Your task to perform on an android device: turn on bluetooth scan Image 0: 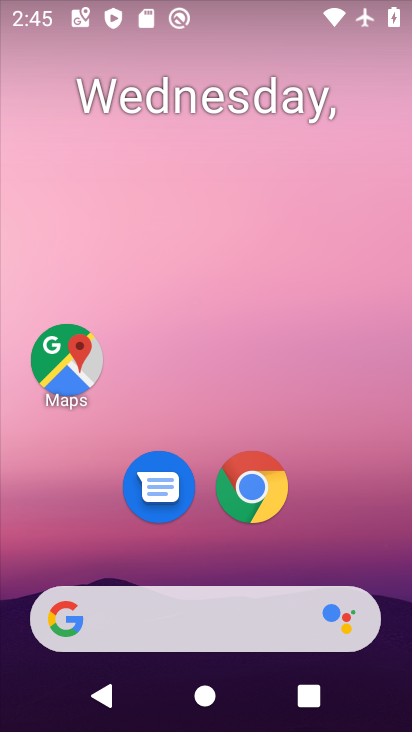
Step 0: drag from (355, 526) to (390, 59)
Your task to perform on an android device: turn on bluetooth scan Image 1: 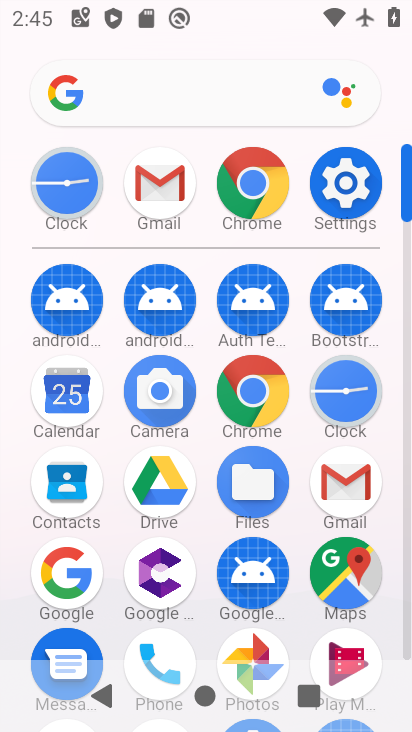
Step 1: click (356, 195)
Your task to perform on an android device: turn on bluetooth scan Image 2: 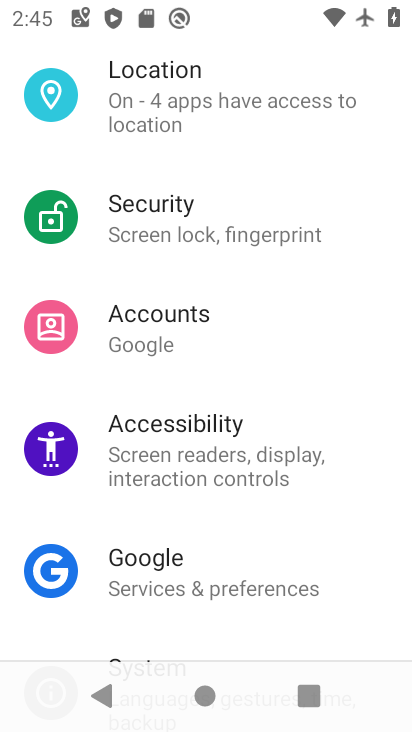
Step 2: drag from (248, 550) to (320, 174)
Your task to perform on an android device: turn on bluetooth scan Image 3: 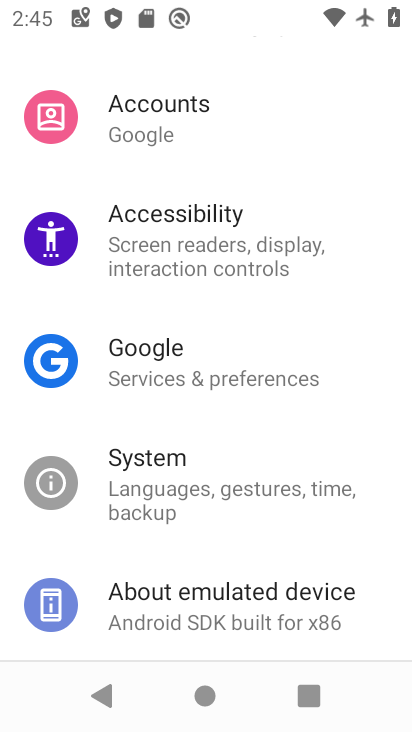
Step 3: drag from (320, 174) to (296, 514)
Your task to perform on an android device: turn on bluetooth scan Image 4: 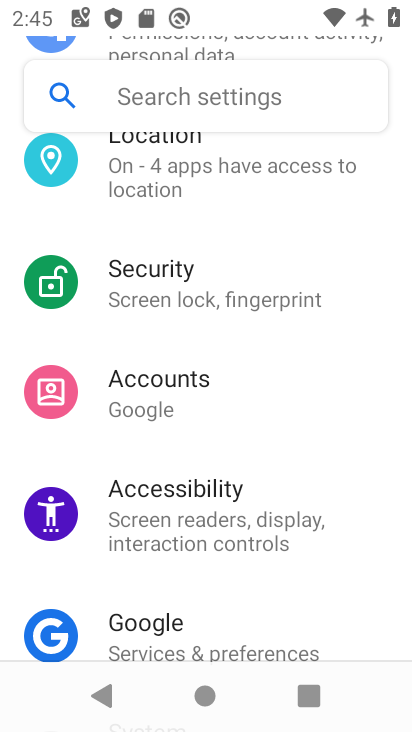
Step 4: click (219, 175)
Your task to perform on an android device: turn on bluetooth scan Image 5: 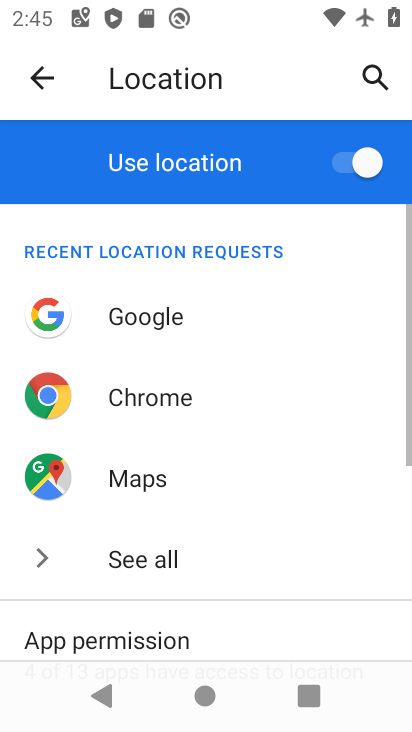
Step 5: drag from (243, 589) to (281, 220)
Your task to perform on an android device: turn on bluetooth scan Image 6: 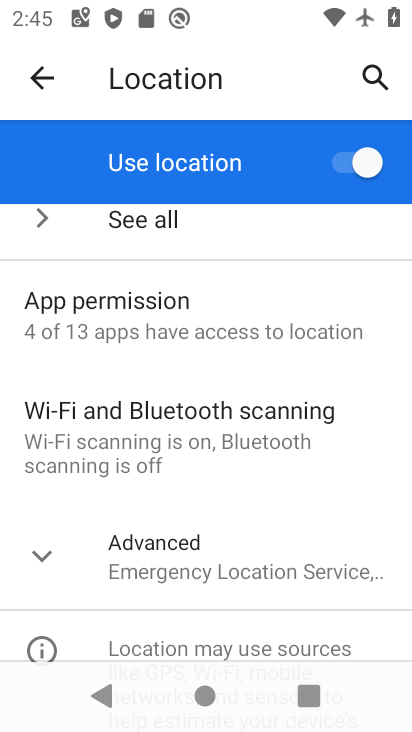
Step 6: click (213, 418)
Your task to perform on an android device: turn on bluetooth scan Image 7: 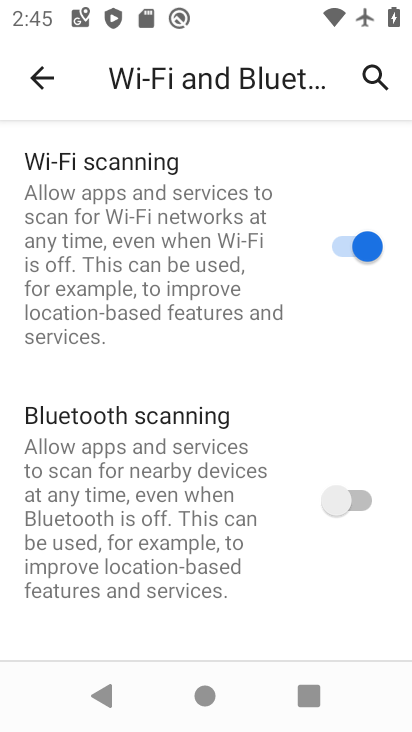
Step 7: click (338, 514)
Your task to perform on an android device: turn on bluetooth scan Image 8: 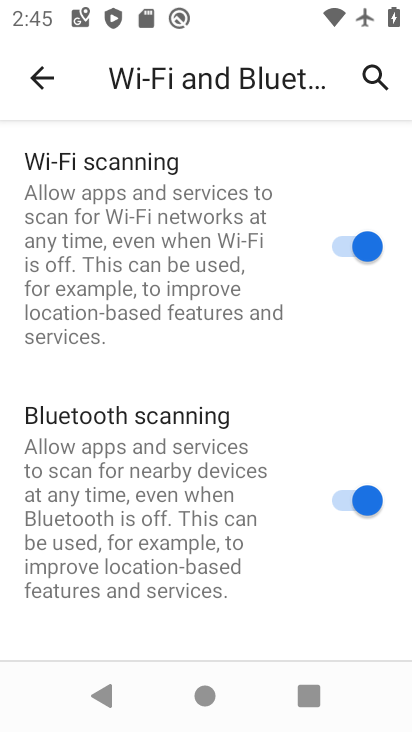
Step 8: task complete